Your task to perform on an android device: see creations saved in the google photos Image 0: 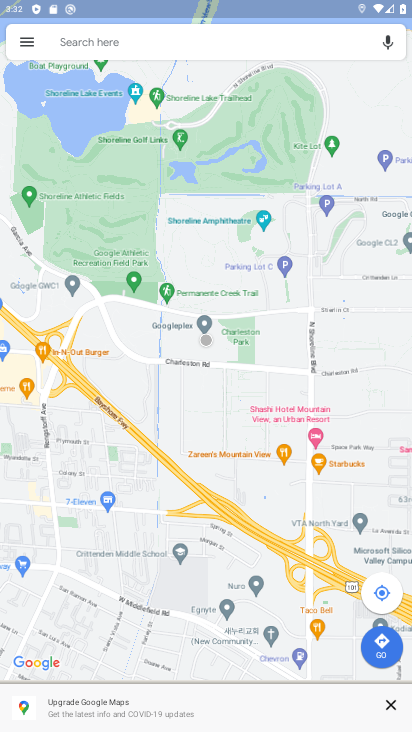
Step 0: drag from (253, 605) to (311, 8)
Your task to perform on an android device: see creations saved in the google photos Image 1: 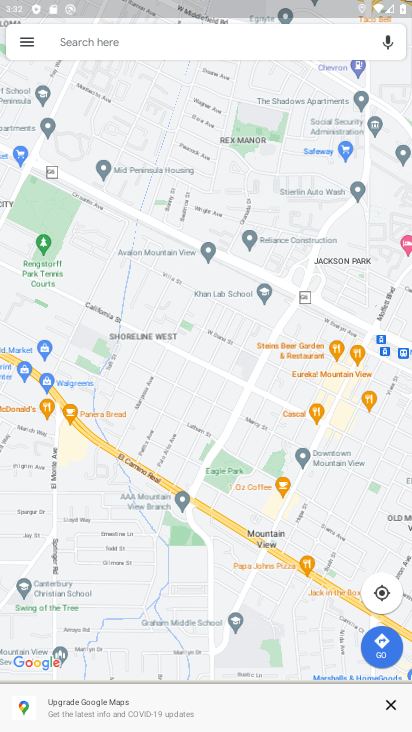
Step 1: press back button
Your task to perform on an android device: see creations saved in the google photos Image 2: 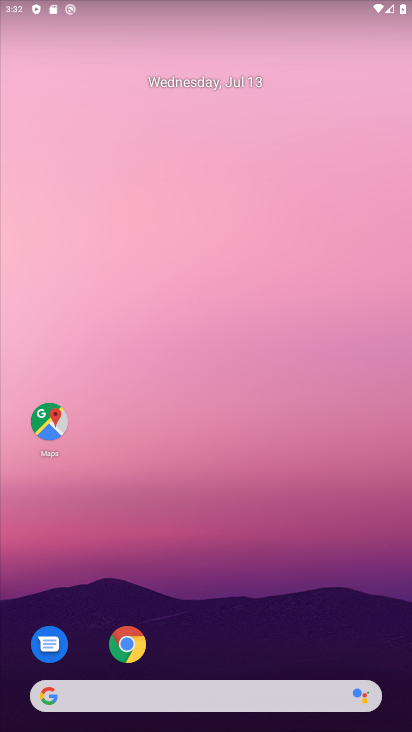
Step 2: drag from (246, 625) to (231, 6)
Your task to perform on an android device: see creations saved in the google photos Image 3: 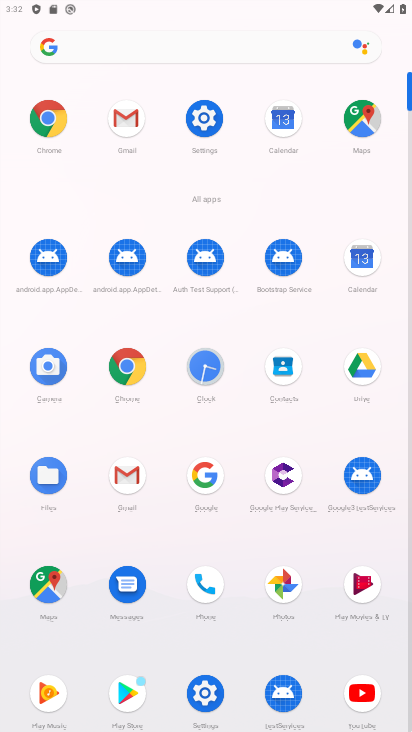
Step 3: click (281, 584)
Your task to perform on an android device: see creations saved in the google photos Image 4: 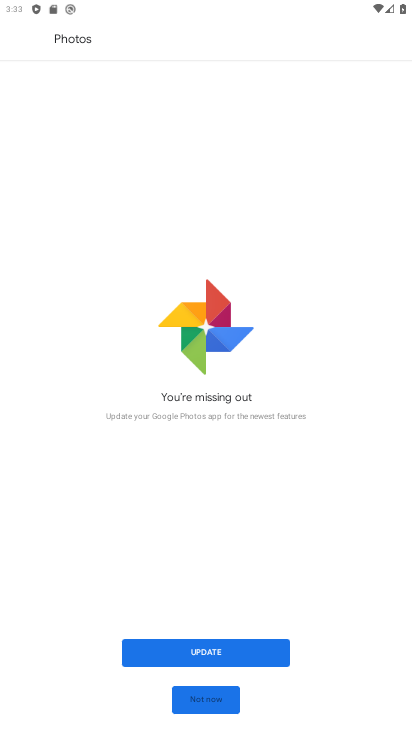
Step 4: click (208, 699)
Your task to perform on an android device: see creations saved in the google photos Image 5: 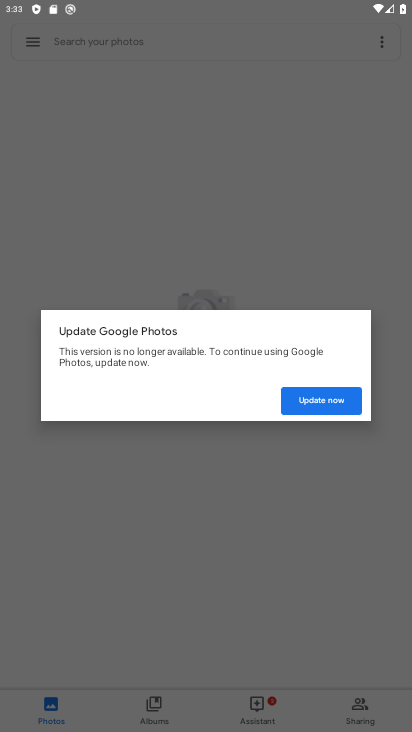
Step 5: click (308, 400)
Your task to perform on an android device: see creations saved in the google photos Image 6: 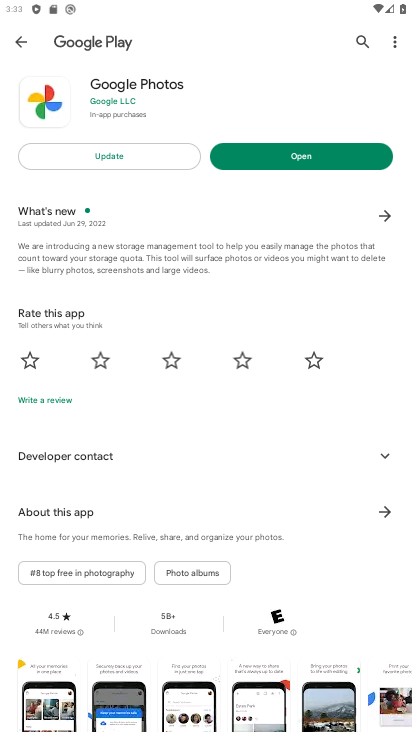
Step 6: click (294, 154)
Your task to perform on an android device: see creations saved in the google photos Image 7: 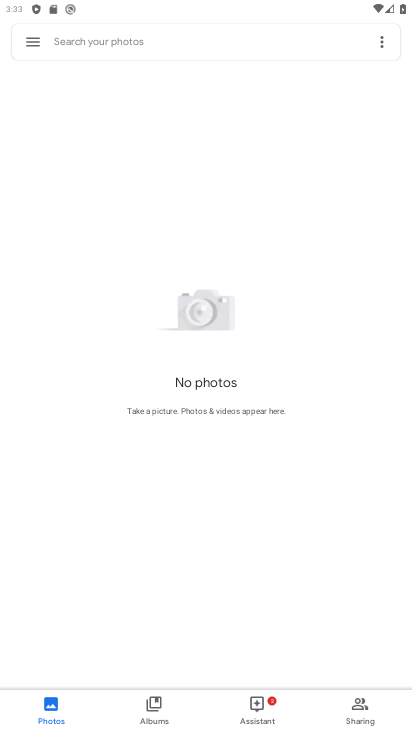
Step 7: click (38, 41)
Your task to perform on an android device: see creations saved in the google photos Image 8: 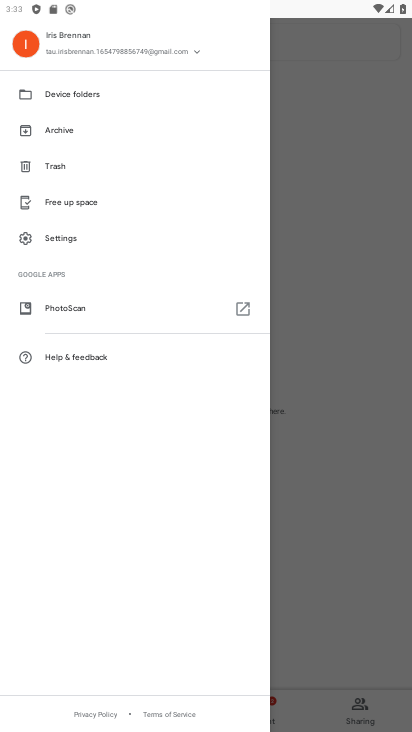
Step 8: click (55, 123)
Your task to perform on an android device: see creations saved in the google photos Image 9: 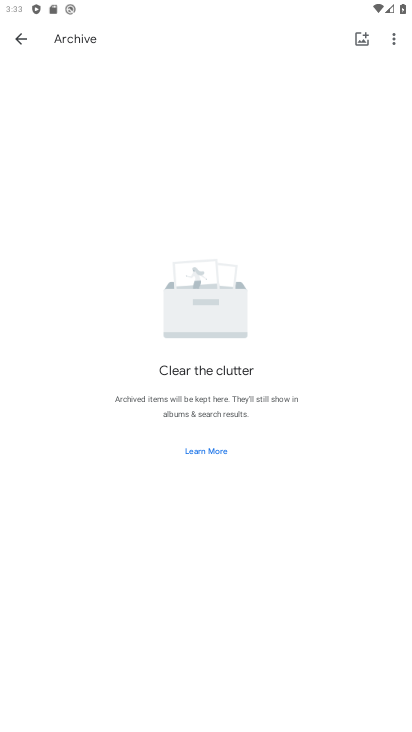
Step 9: task complete